Your task to perform on an android device: turn off airplane mode Image 0: 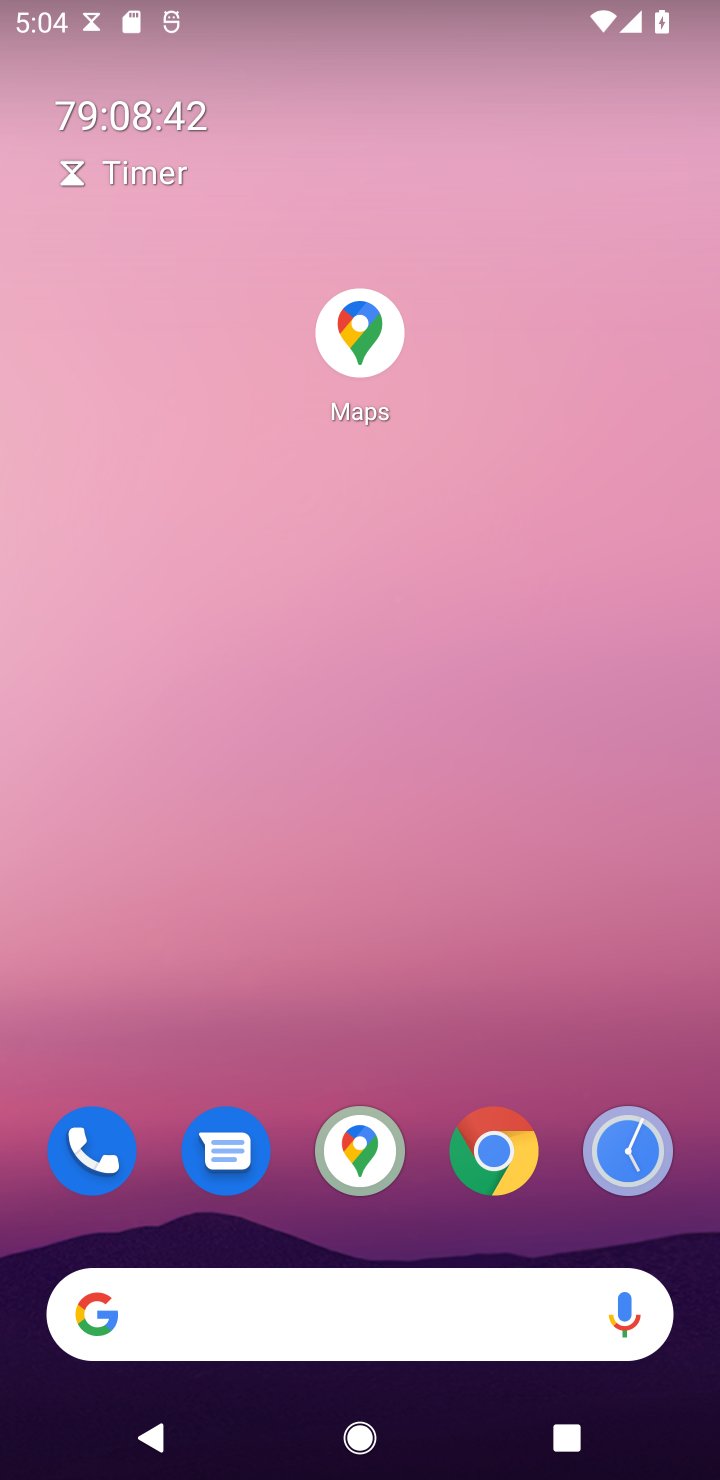
Step 0: drag from (316, 993) to (319, 222)
Your task to perform on an android device: turn off airplane mode Image 1: 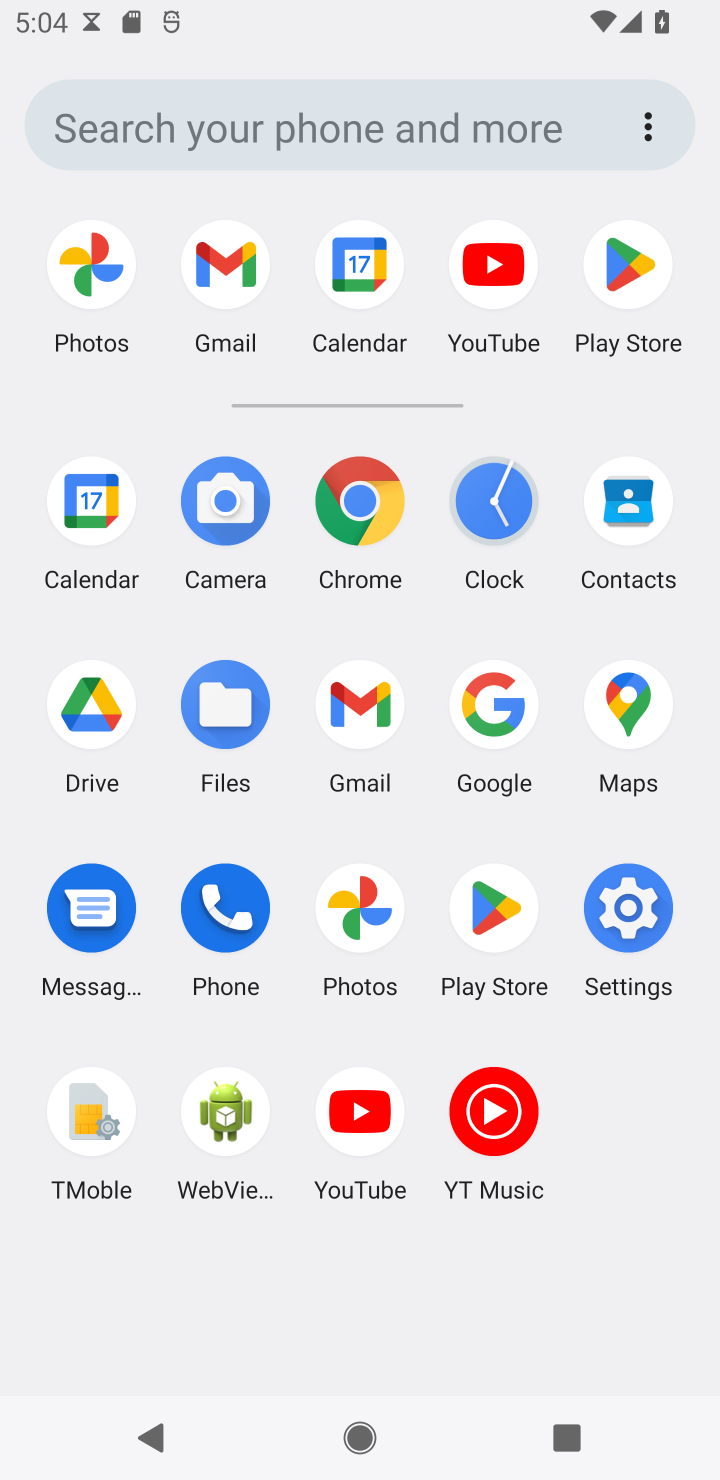
Step 1: click (622, 918)
Your task to perform on an android device: turn off airplane mode Image 2: 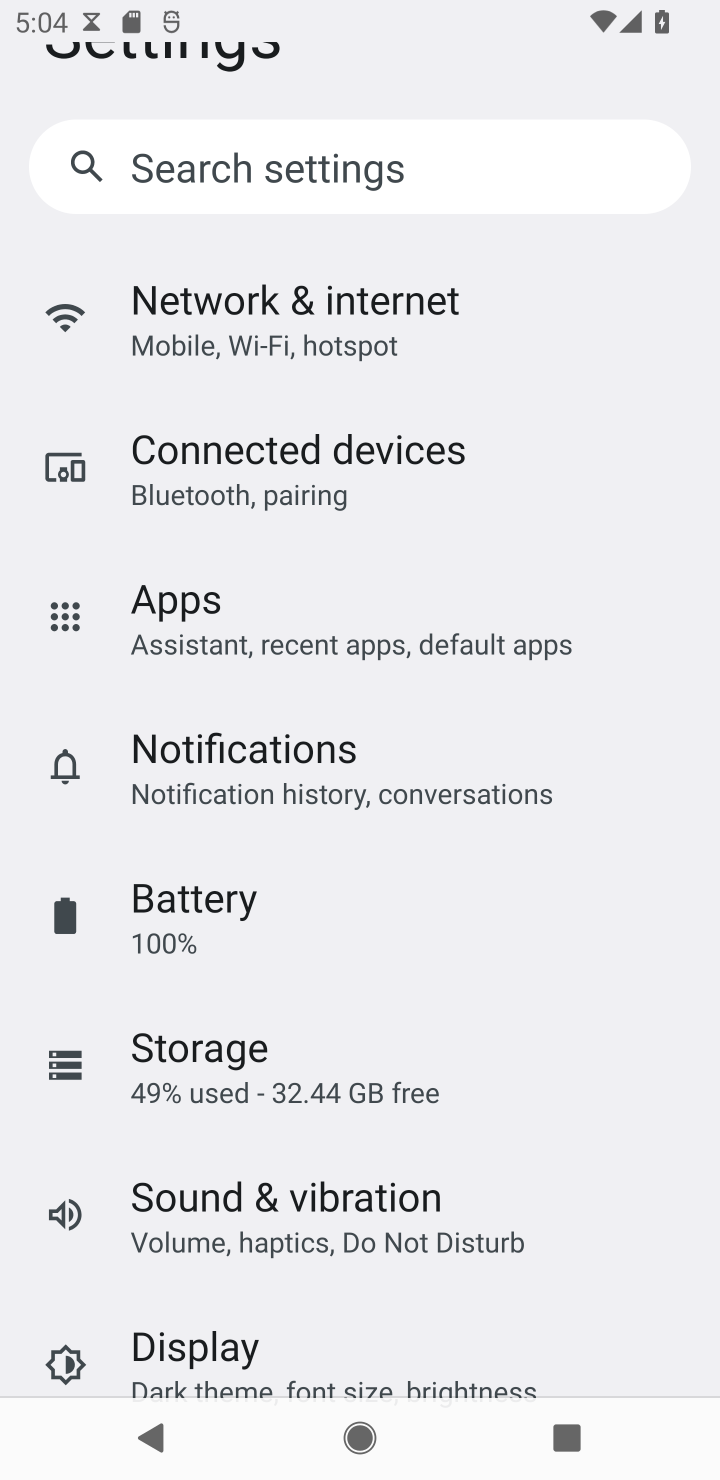
Step 2: click (276, 318)
Your task to perform on an android device: turn off airplane mode Image 3: 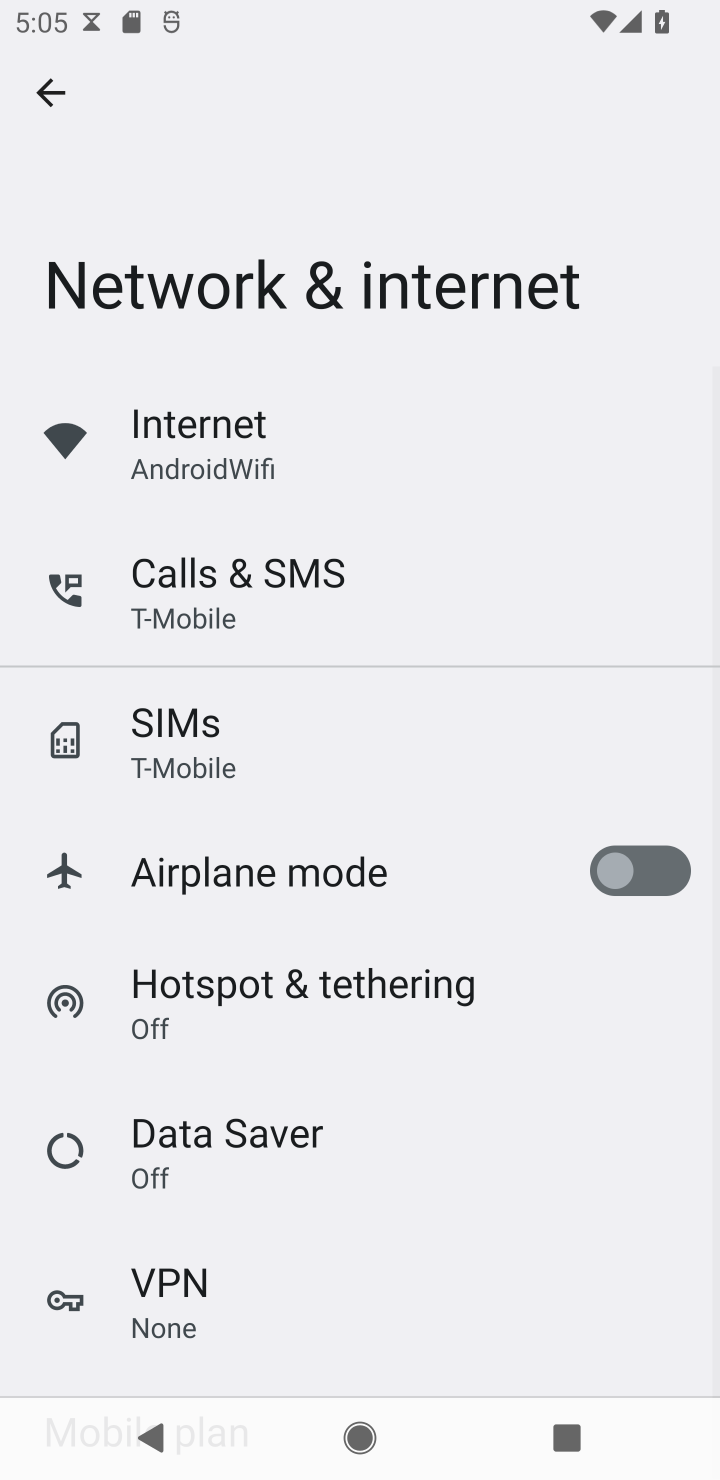
Step 3: click (626, 863)
Your task to perform on an android device: turn off airplane mode Image 4: 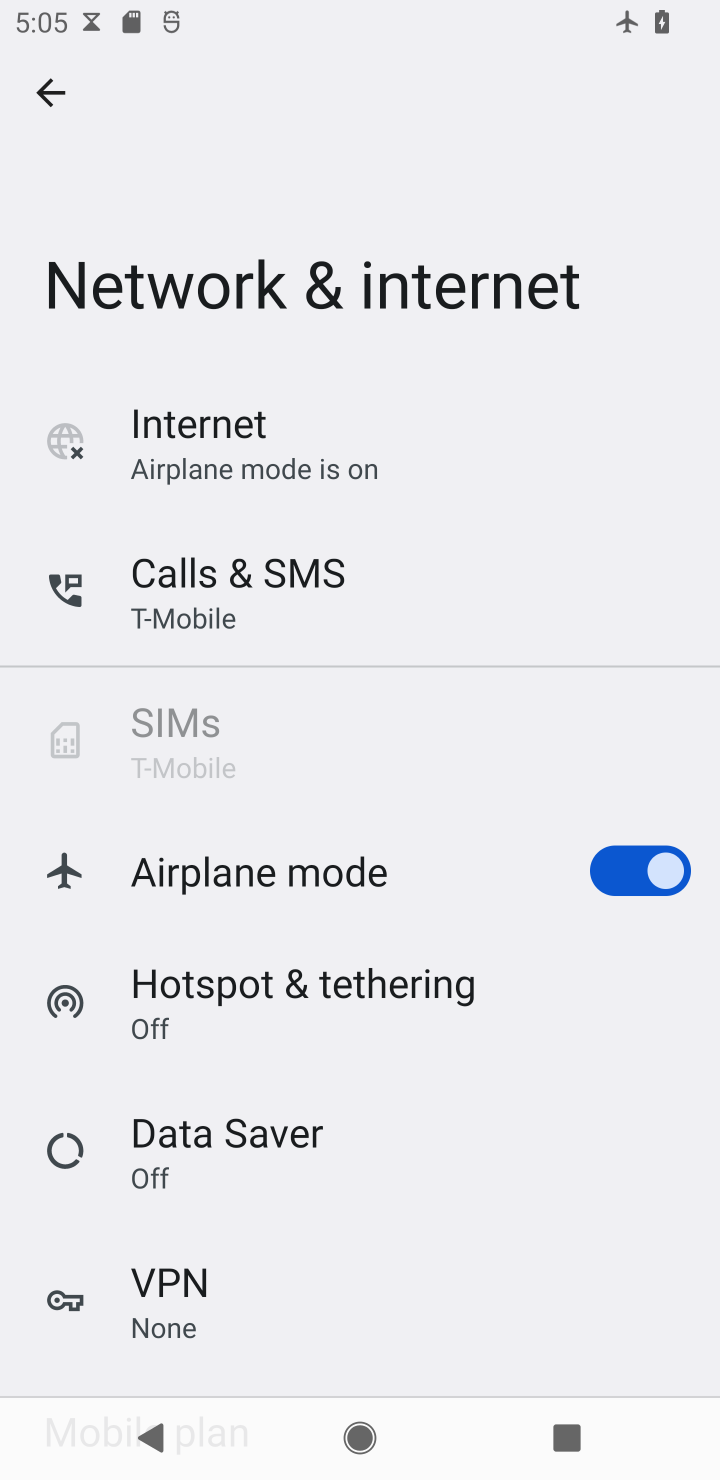
Step 4: click (611, 818)
Your task to perform on an android device: turn off airplane mode Image 5: 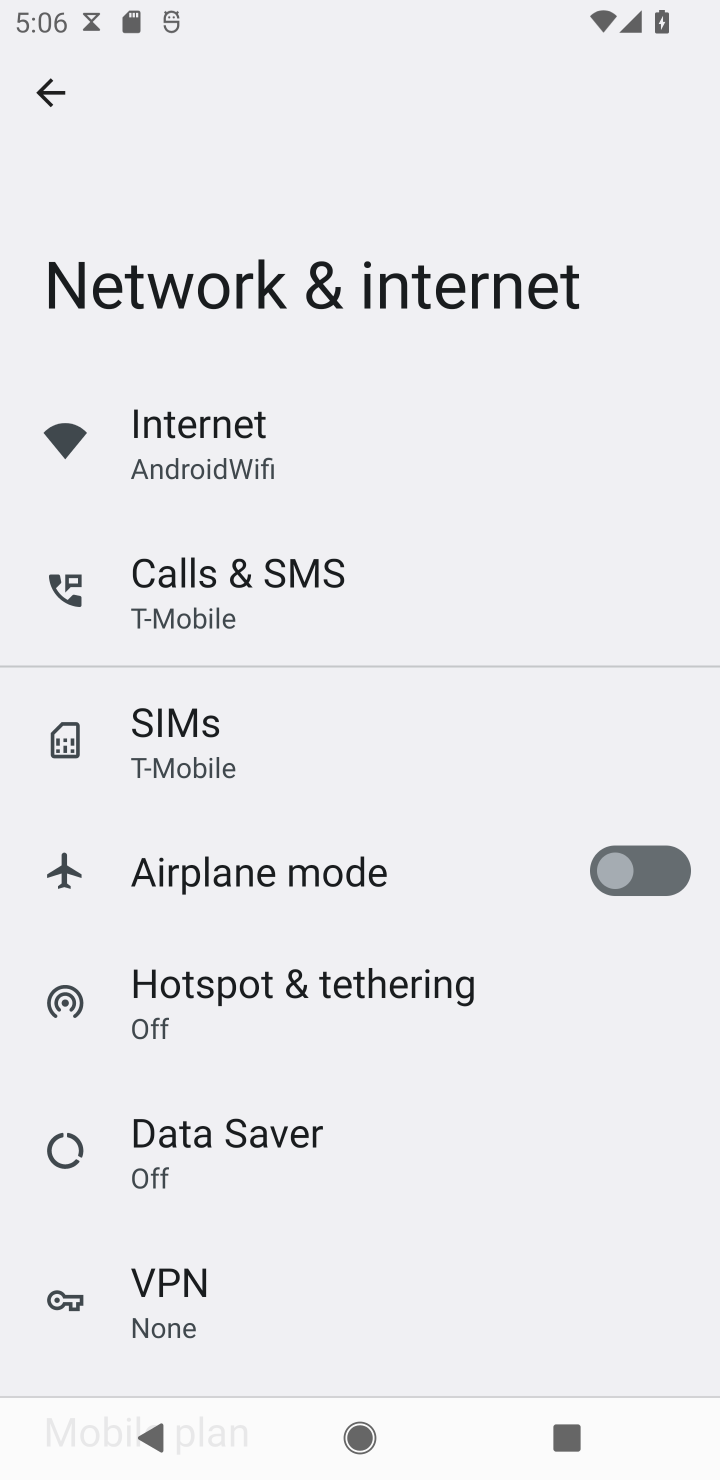
Step 5: task complete